Your task to perform on an android device: turn on translation in the chrome app Image 0: 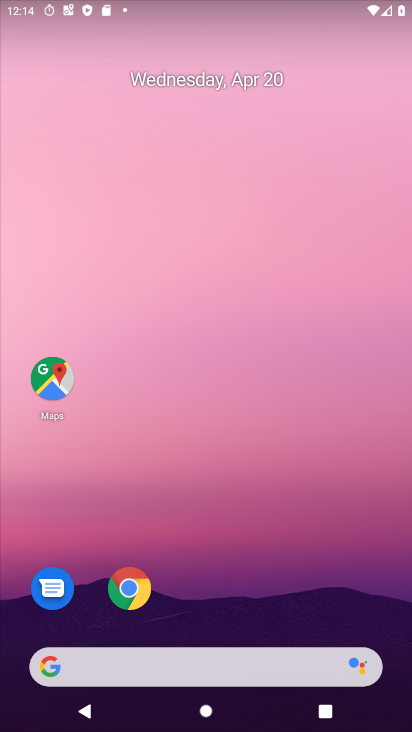
Step 0: click (140, 600)
Your task to perform on an android device: turn on translation in the chrome app Image 1: 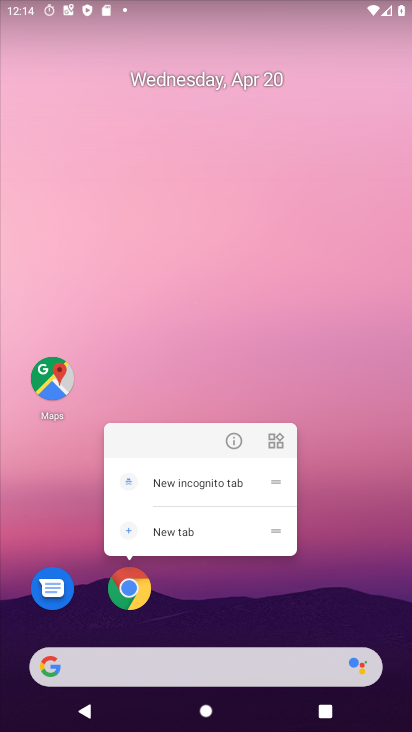
Step 1: click (139, 599)
Your task to perform on an android device: turn on translation in the chrome app Image 2: 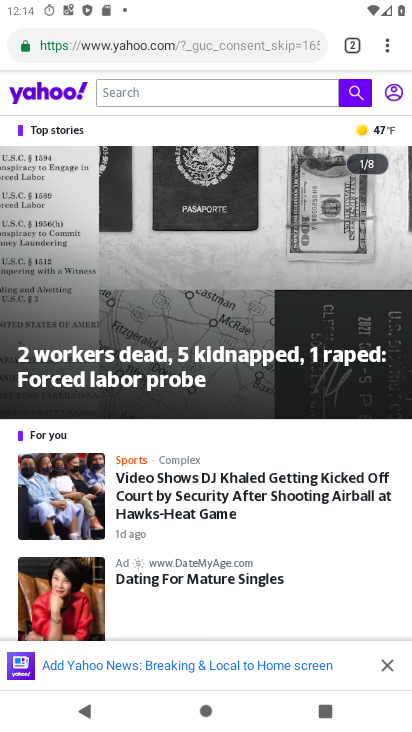
Step 2: click (299, 232)
Your task to perform on an android device: turn on translation in the chrome app Image 3: 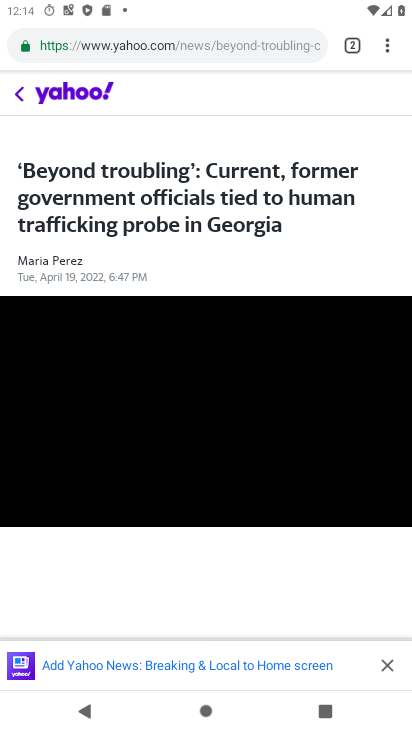
Step 3: click (382, 51)
Your task to perform on an android device: turn on translation in the chrome app Image 4: 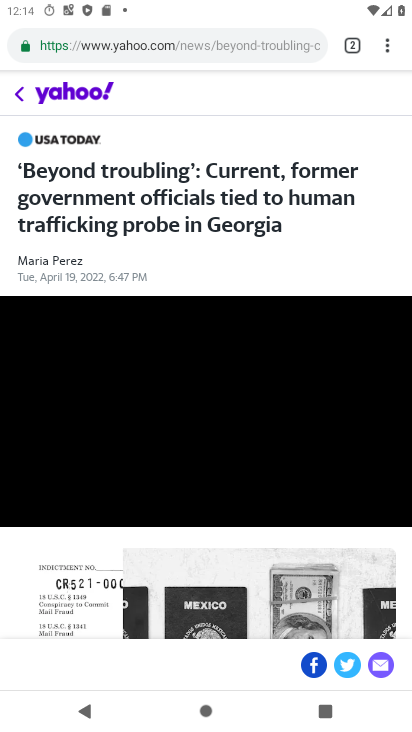
Step 4: drag from (381, 54) to (232, 552)
Your task to perform on an android device: turn on translation in the chrome app Image 5: 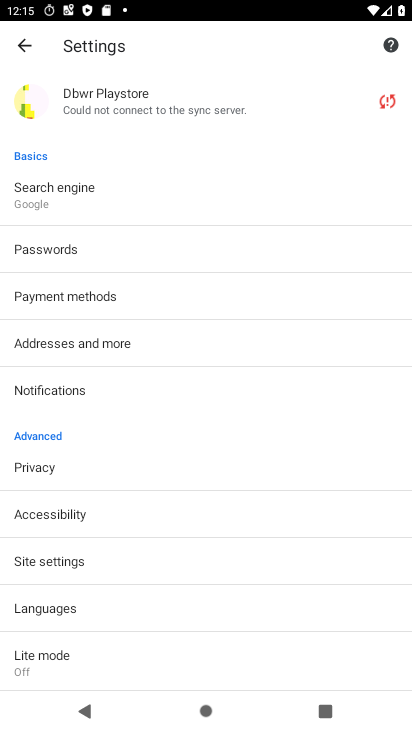
Step 5: click (42, 606)
Your task to perform on an android device: turn on translation in the chrome app Image 6: 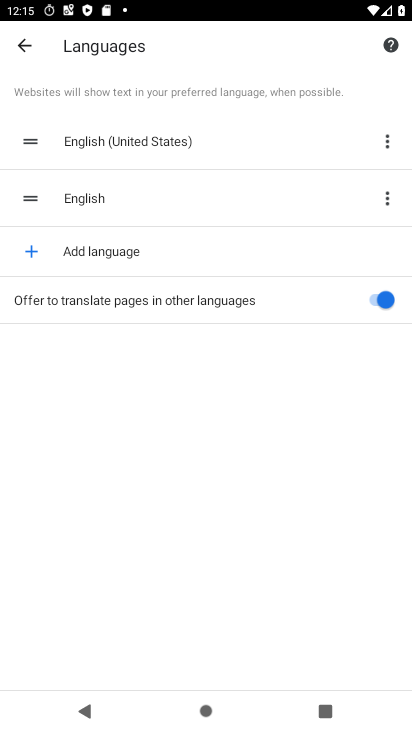
Step 6: task complete